Your task to perform on an android device: turn on the 12-hour format for clock Image 0: 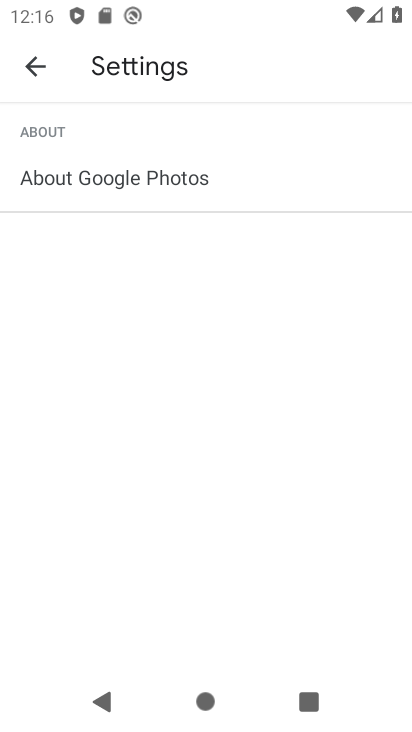
Step 0: press home button
Your task to perform on an android device: turn on the 12-hour format for clock Image 1: 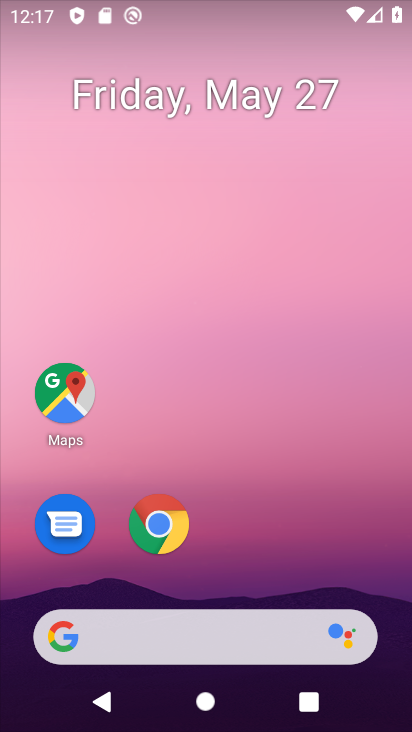
Step 1: drag from (260, 530) to (265, 48)
Your task to perform on an android device: turn on the 12-hour format for clock Image 2: 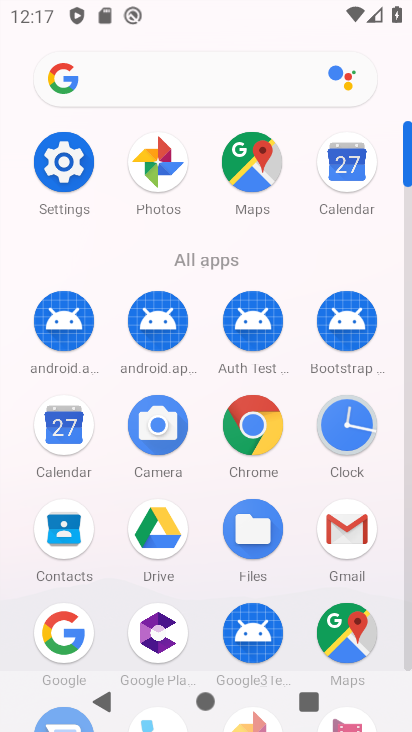
Step 2: click (348, 414)
Your task to perform on an android device: turn on the 12-hour format for clock Image 3: 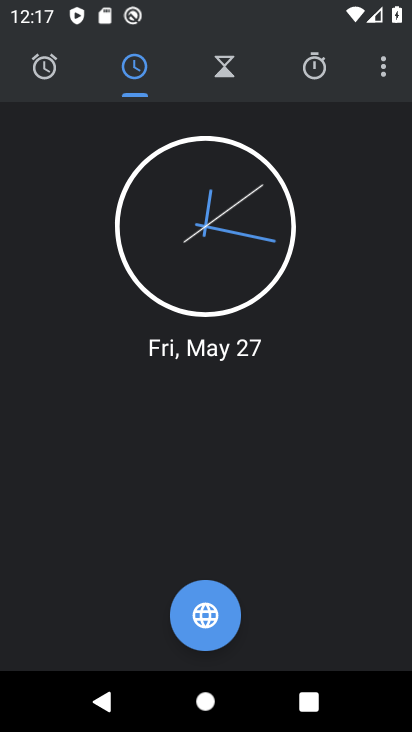
Step 3: click (386, 70)
Your task to perform on an android device: turn on the 12-hour format for clock Image 4: 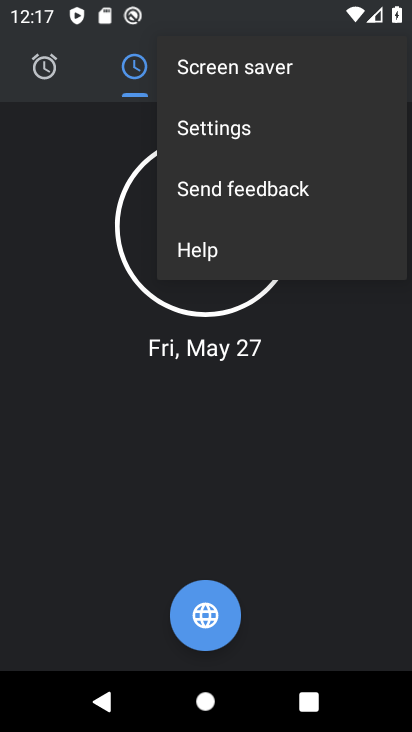
Step 4: click (328, 125)
Your task to perform on an android device: turn on the 12-hour format for clock Image 5: 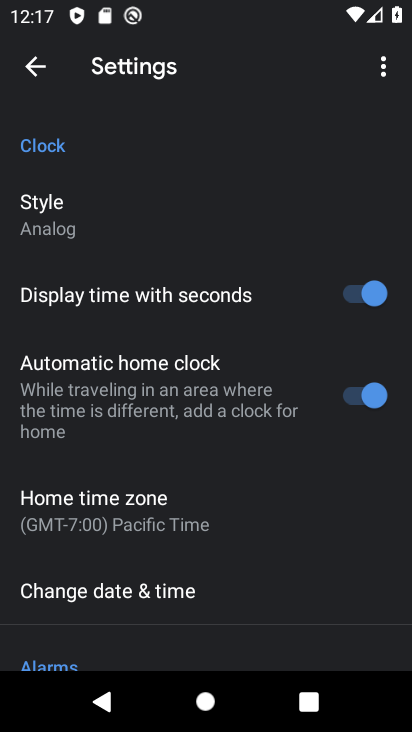
Step 5: click (262, 586)
Your task to perform on an android device: turn on the 12-hour format for clock Image 6: 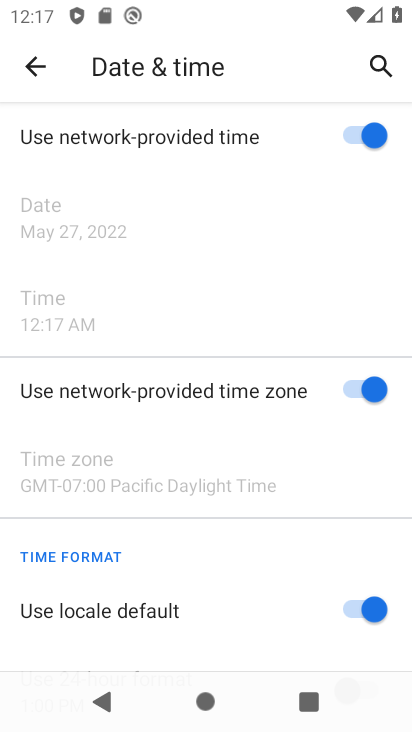
Step 6: task complete